Your task to perform on an android device: Go to privacy settings Image 0: 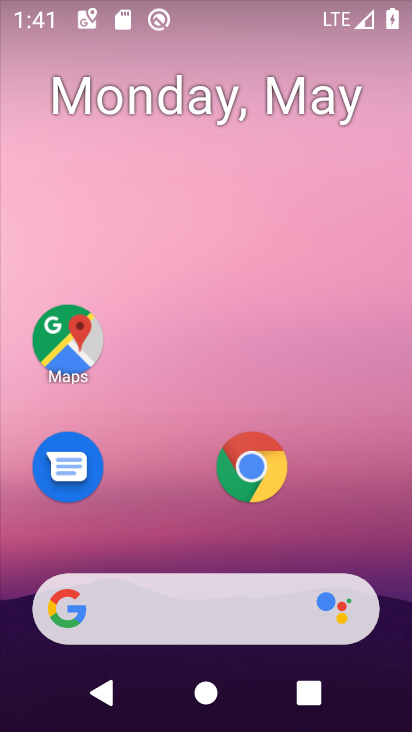
Step 0: drag from (199, 525) to (235, 110)
Your task to perform on an android device: Go to privacy settings Image 1: 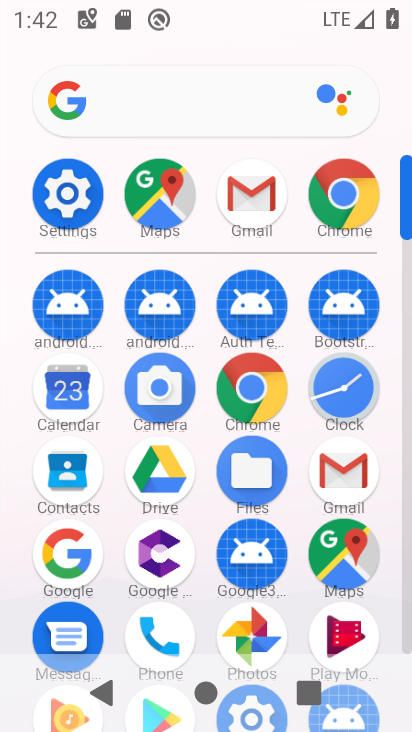
Step 1: click (88, 214)
Your task to perform on an android device: Go to privacy settings Image 2: 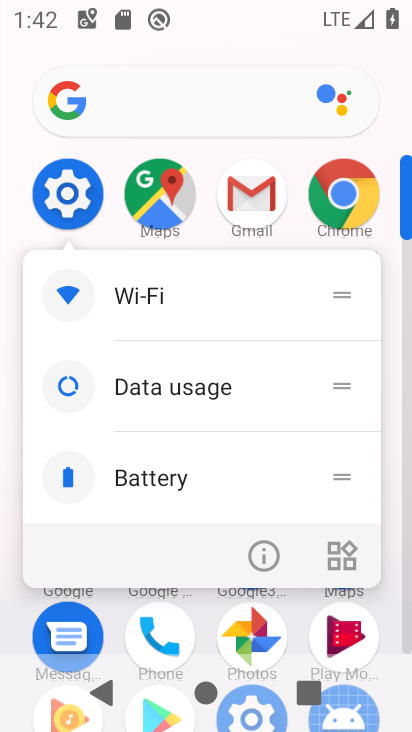
Step 2: click (254, 560)
Your task to perform on an android device: Go to privacy settings Image 3: 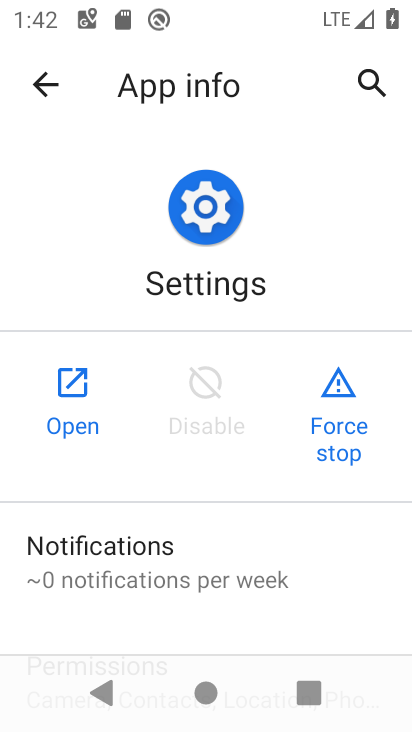
Step 3: click (62, 382)
Your task to perform on an android device: Go to privacy settings Image 4: 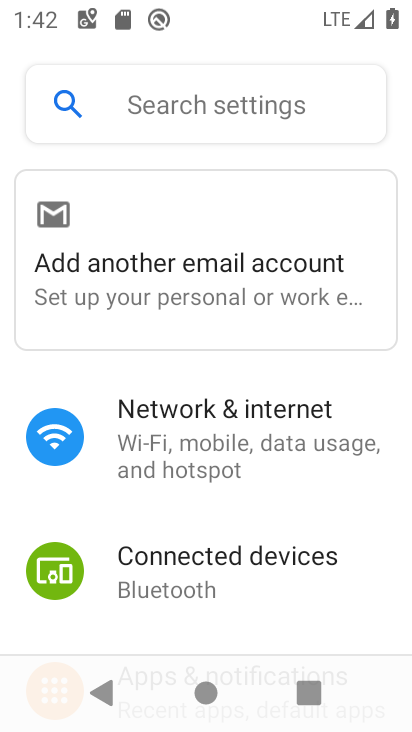
Step 4: drag from (202, 619) to (289, 140)
Your task to perform on an android device: Go to privacy settings Image 5: 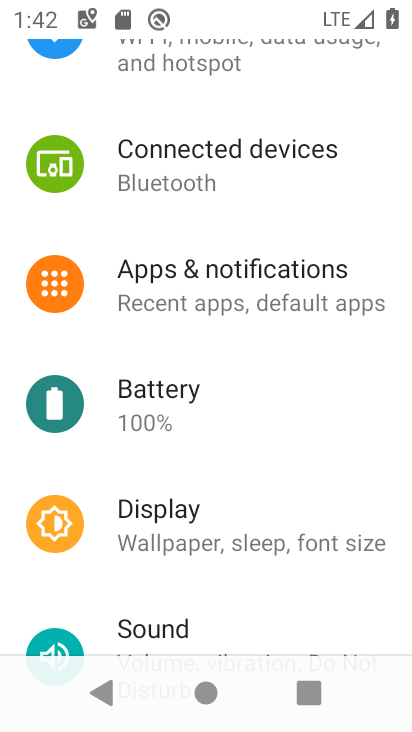
Step 5: drag from (210, 512) to (298, 88)
Your task to perform on an android device: Go to privacy settings Image 6: 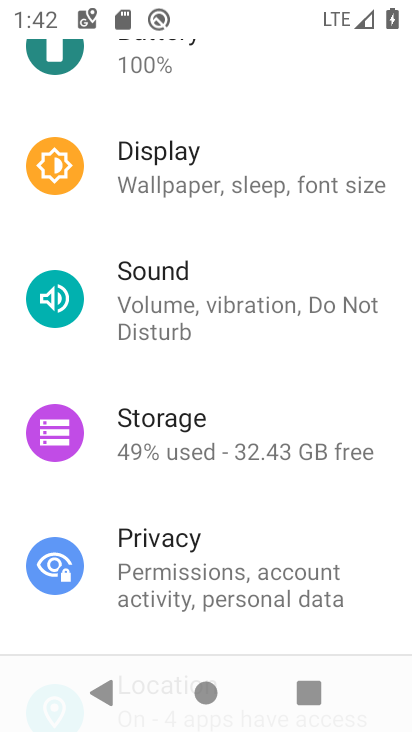
Step 6: click (178, 564)
Your task to perform on an android device: Go to privacy settings Image 7: 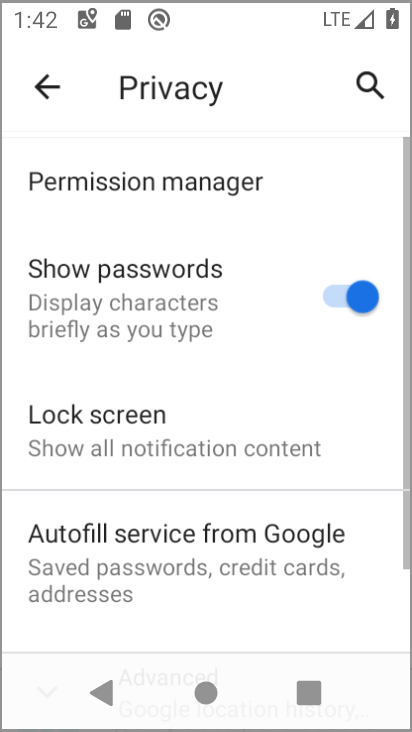
Step 7: task complete